Your task to perform on an android device: Go to accessibility settings Image 0: 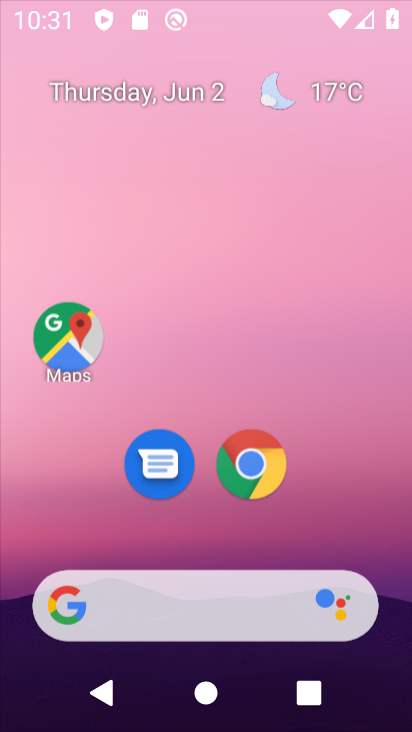
Step 0: press home button
Your task to perform on an android device: Go to accessibility settings Image 1: 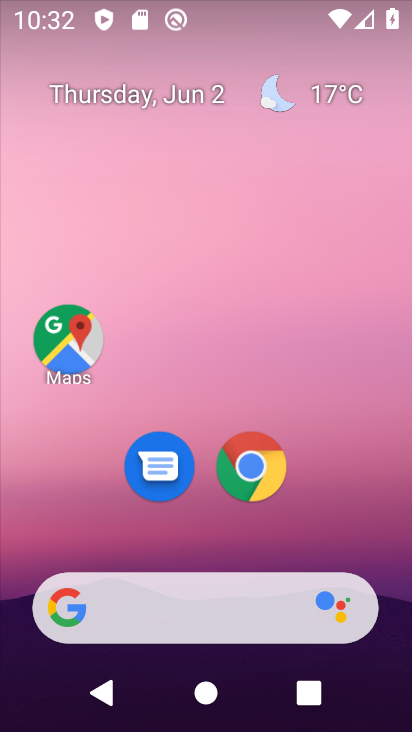
Step 1: drag from (277, 537) to (299, 285)
Your task to perform on an android device: Go to accessibility settings Image 2: 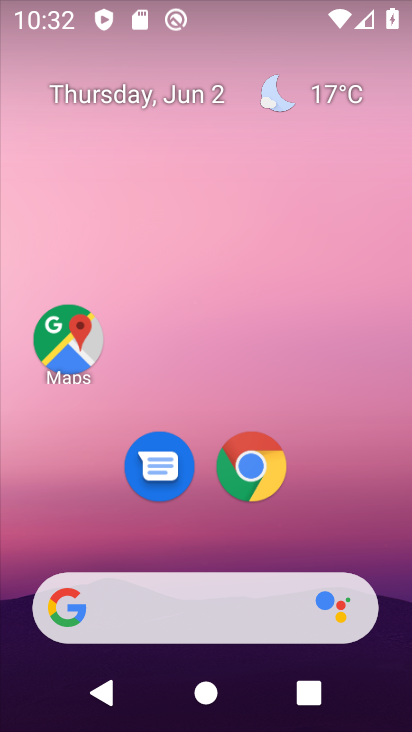
Step 2: drag from (190, 547) to (256, 40)
Your task to perform on an android device: Go to accessibility settings Image 3: 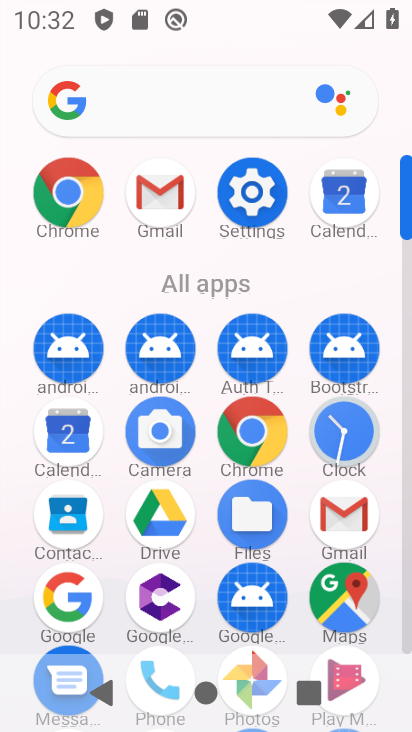
Step 3: click (259, 196)
Your task to perform on an android device: Go to accessibility settings Image 4: 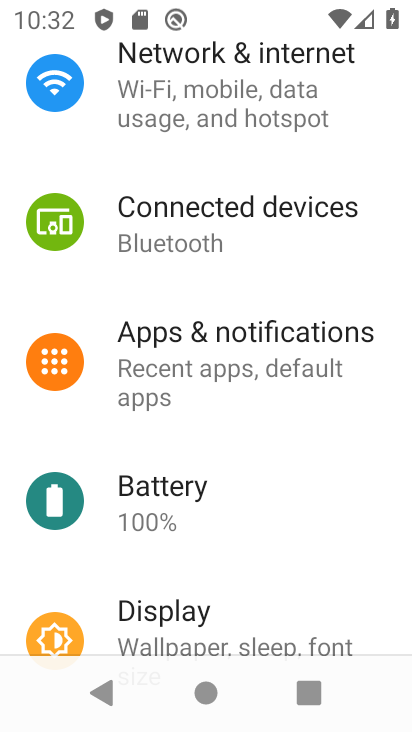
Step 4: drag from (308, 401) to (294, 17)
Your task to perform on an android device: Go to accessibility settings Image 5: 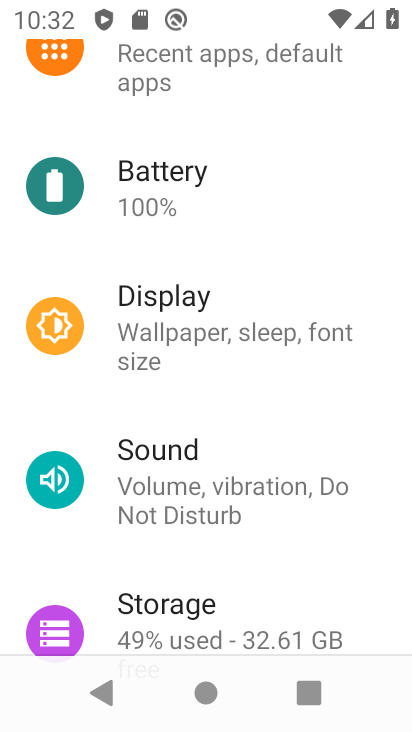
Step 5: drag from (278, 531) to (265, 101)
Your task to perform on an android device: Go to accessibility settings Image 6: 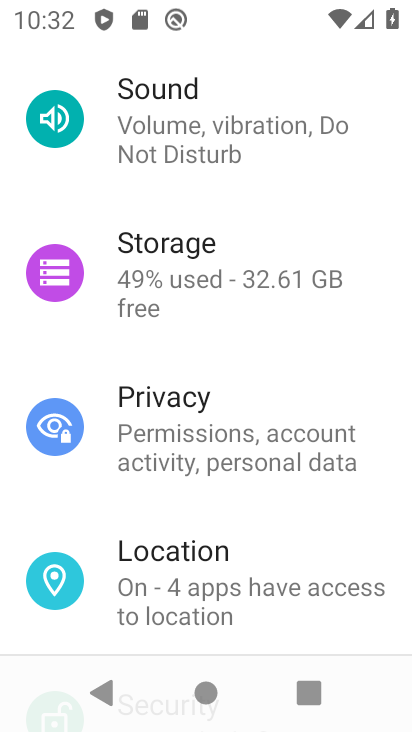
Step 6: drag from (270, 520) to (285, 81)
Your task to perform on an android device: Go to accessibility settings Image 7: 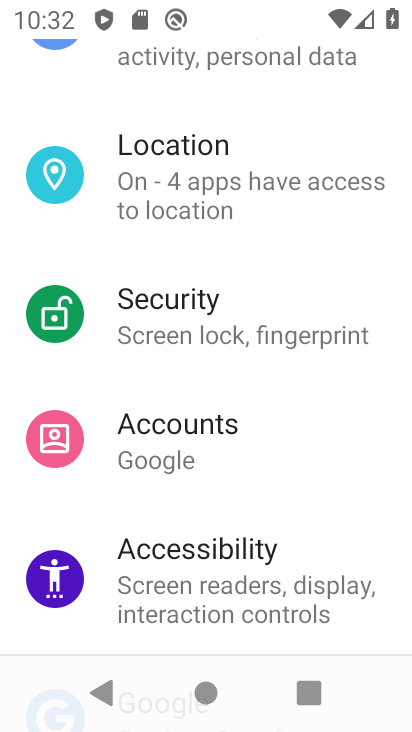
Step 7: click (207, 558)
Your task to perform on an android device: Go to accessibility settings Image 8: 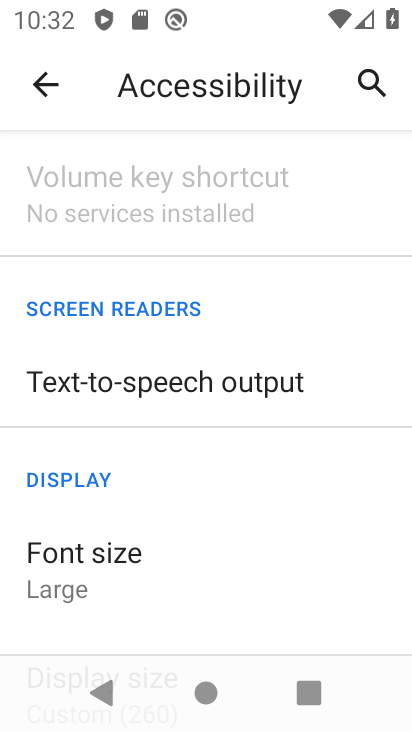
Step 8: task complete